Your task to perform on an android device: see tabs open on other devices in the chrome app Image 0: 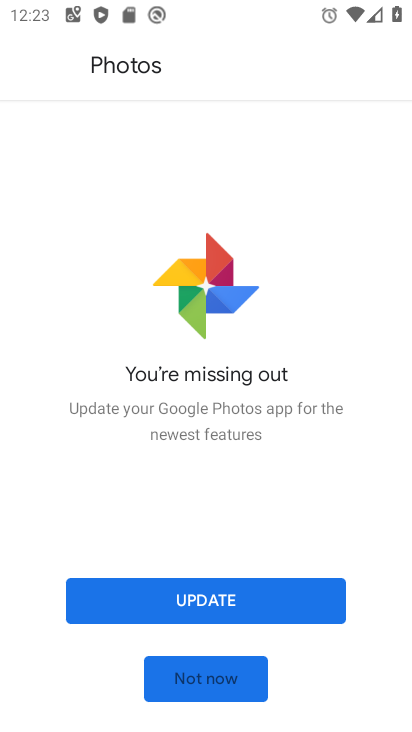
Step 0: press home button
Your task to perform on an android device: see tabs open on other devices in the chrome app Image 1: 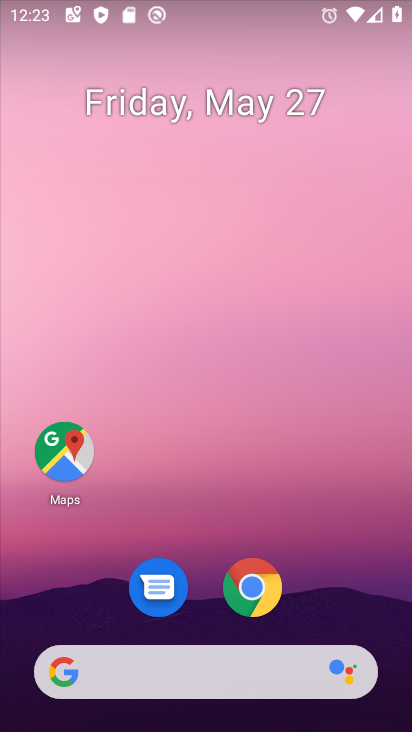
Step 1: drag from (213, 662) to (237, 87)
Your task to perform on an android device: see tabs open on other devices in the chrome app Image 2: 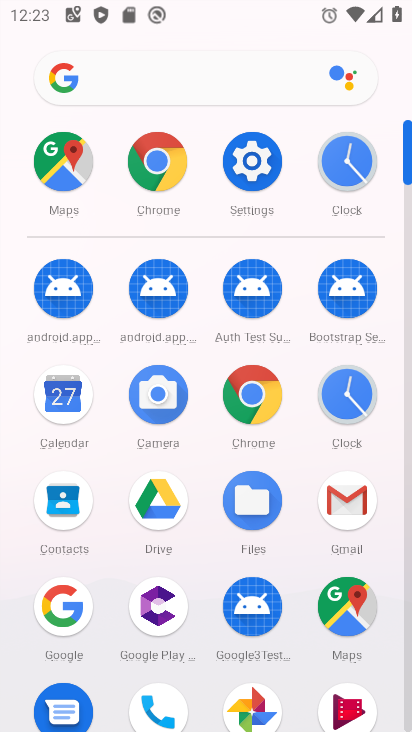
Step 2: click (166, 178)
Your task to perform on an android device: see tabs open on other devices in the chrome app Image 3: 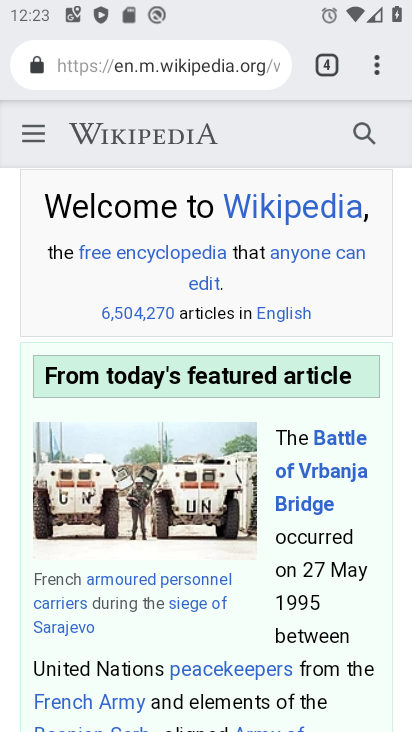
Step 3: click (370, 77)
Your task to perform on an android device: see tabs open on other devices in the chrome app Image 4: 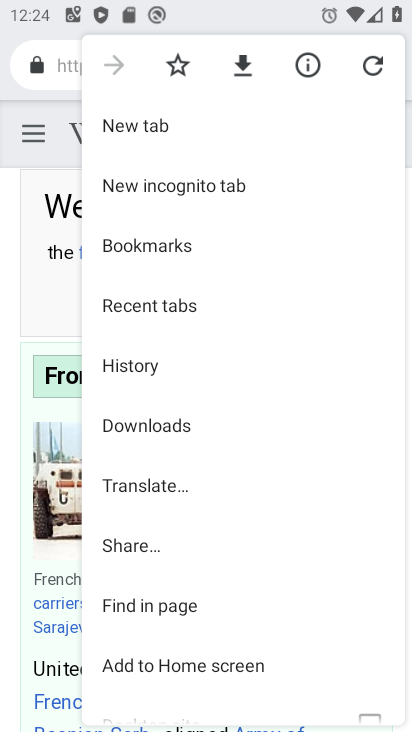
Step 4: drag from (295, 451) to (332, 167)
Your task to perform on an android device: see tabs open on other devices in the chrome app Image 5: 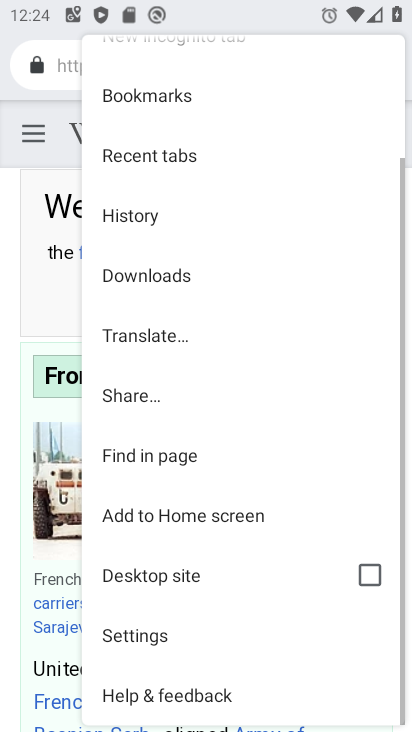
Step 5: click (199, 625)
Your task to perform on an android device: see tabs open on other devices in the chrome app Image 6: 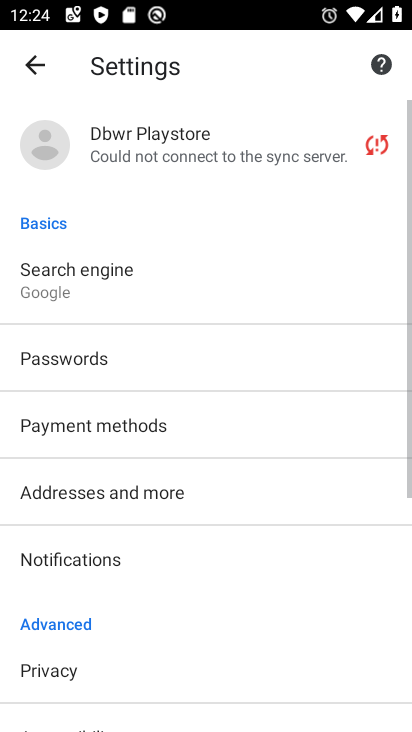
Step 6: drag from (195, 621) to (194, 271)
Your task to perform on an android device: see tabs open on other devices in the chrome app Image 7: 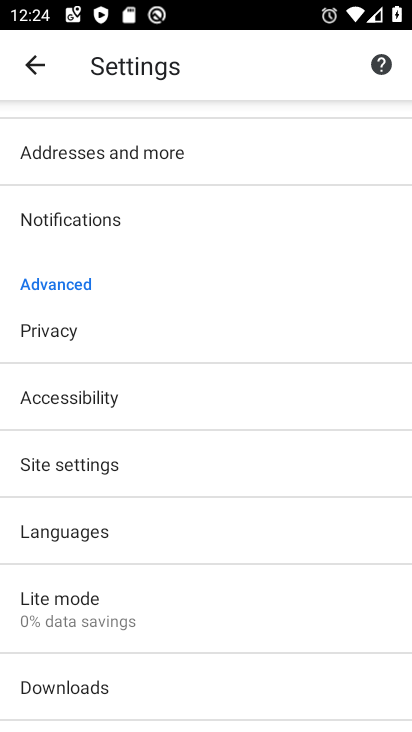
Step 7: click (105, 606)
Your task to perform on an android device: see tabs open on other devices in the chrome app Image 8: 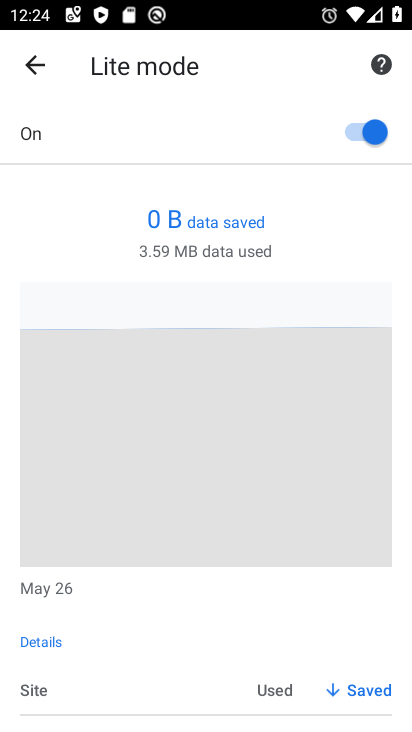
Step 8: click (40, 68)
Your task to perform on an android device: see tabs open on other devices in the chrome app Image 9: 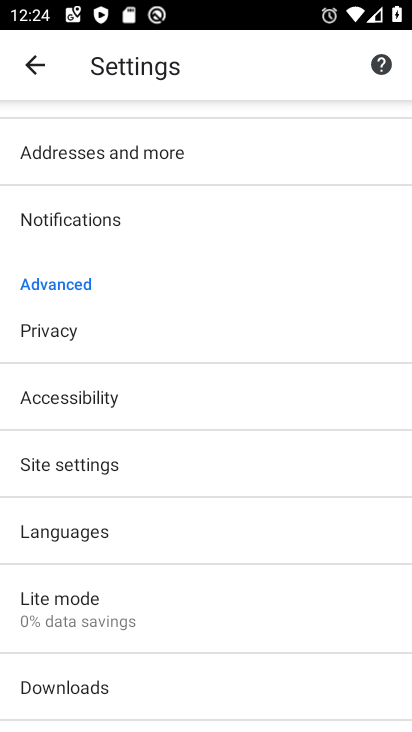
Step 9: click (34, 89)
Your task to perform on an android device: see tabs open on other devices in the chrome app Image 10: 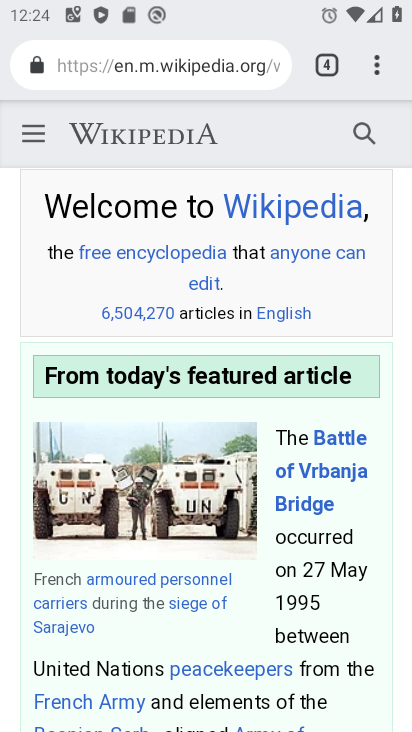
Step 10: click (329, 55)
Your task to perform on an android device: see tabs open on other devices in the chrome app Image 11: 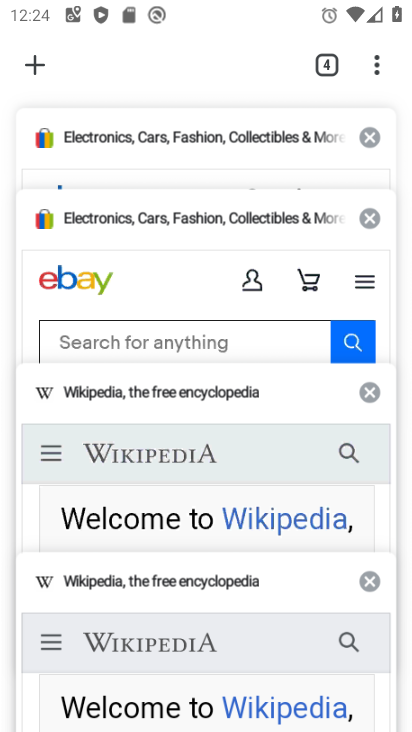
Step 11: click (27, 69)
Your task to perform on an android device: see tabs open on other devices in the chrome app Image 12: 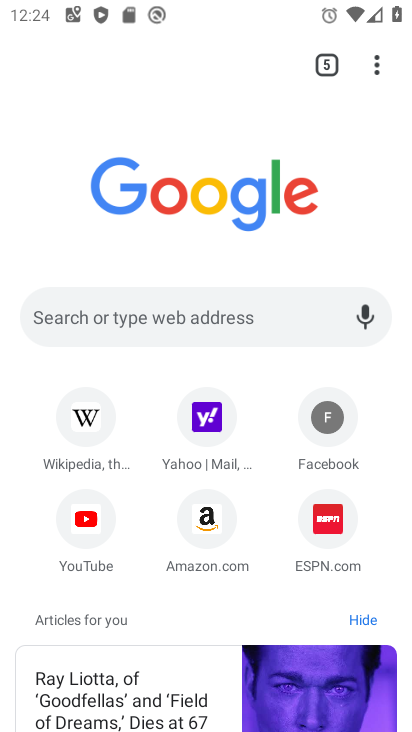
Step 12: task complete